Your task to perform on an android device: choose inbox layout in the gmail app Image 0: 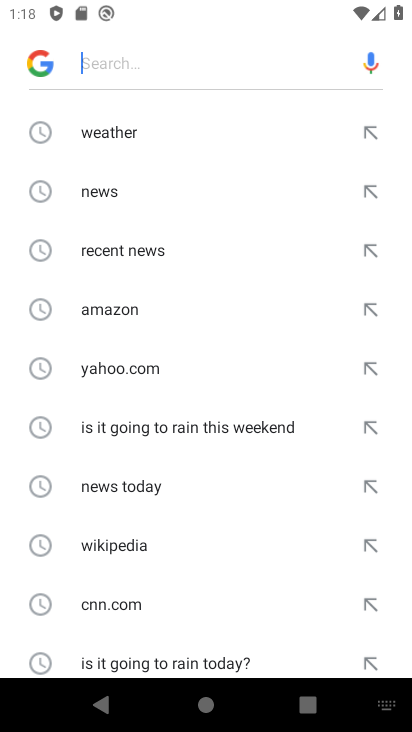
Step 0: press home button
Your task to perform on an android device: choose inbox layout in the gmail app Image 1: 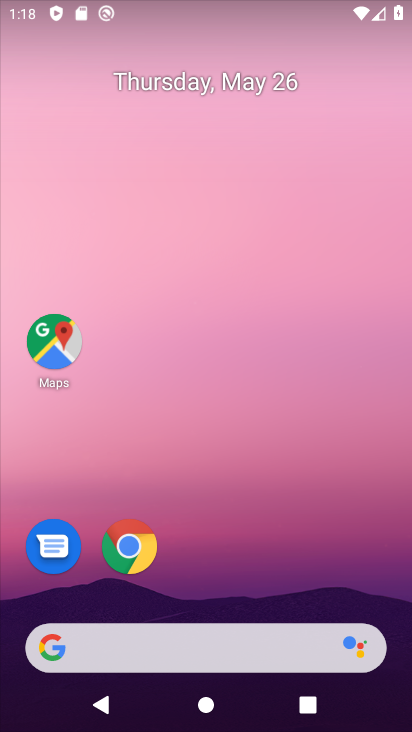
Step 1: drag from (225, 572) to (303, 139)
Your task to perform on an android device: choose inbox layout in the gmail app Image 2: 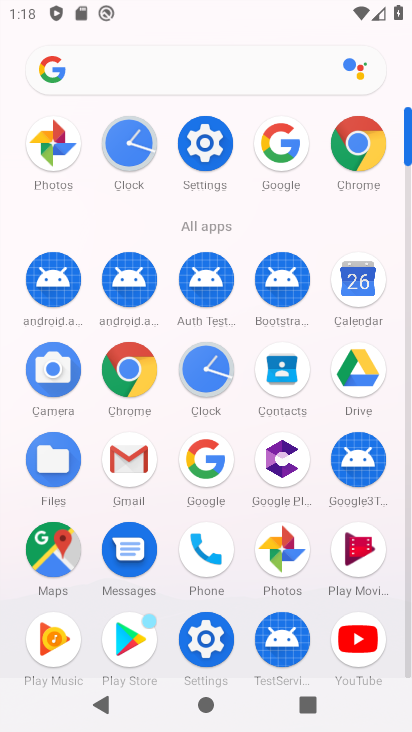
Step 2: click (130, 461)
Your task to perform on an android device: choose inbox layout in the gmail app Image 3: 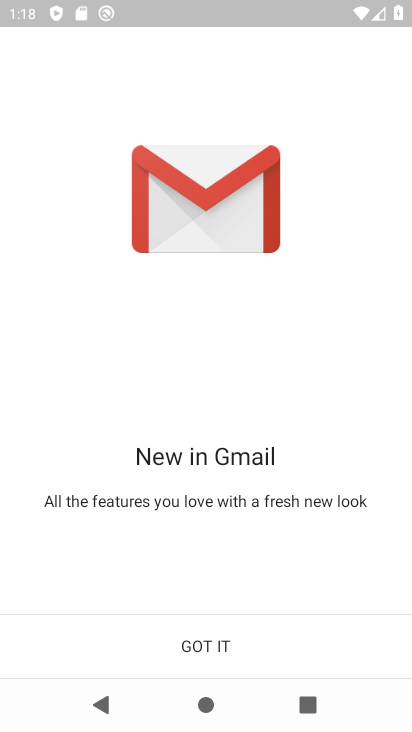
Step 3: click (210, 635)
Your task to perform on an android device: choose inbox layout in the gmail app Image 4: 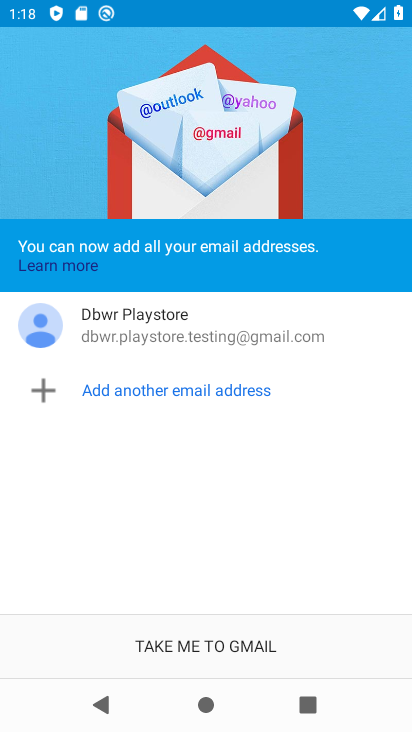
Step 4: click (197, 639)
Your task to perform on an android device: choose inbox layout in the gmail app Image 5: 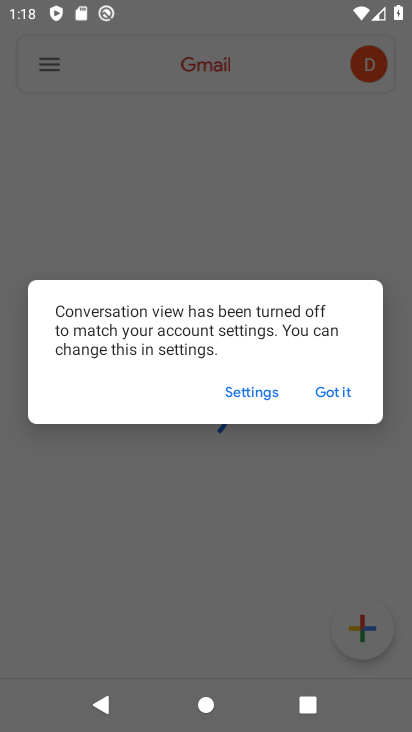
Step 5: click (320, 402)
Your task to perform on an android device: choose inbox layout in the gmail app Image 6: 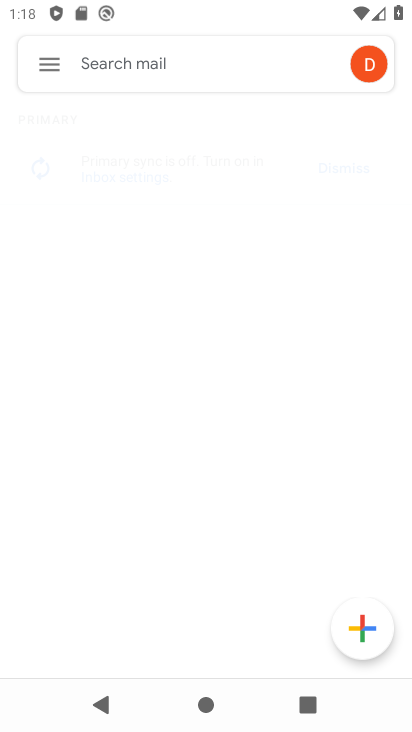
Step 6: click (45, 70)
Your task to perform on an android device: choose inbox layout in the gmail app Image 7: 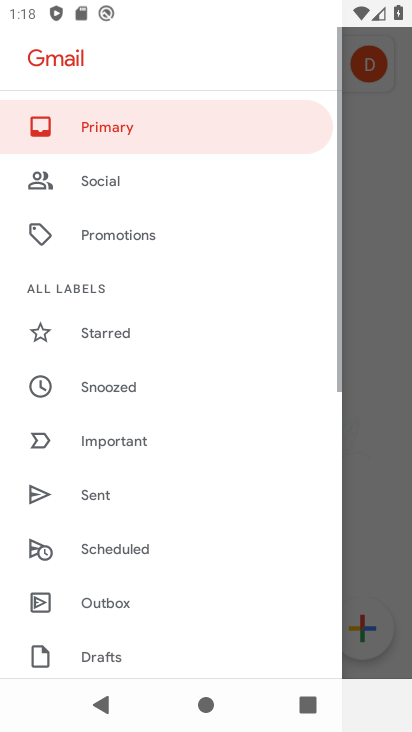
Step 7: drag from (155, 605) to (186, 134)
Your task to perform on an android device: choose inbox layout in the gmail app Image 8: 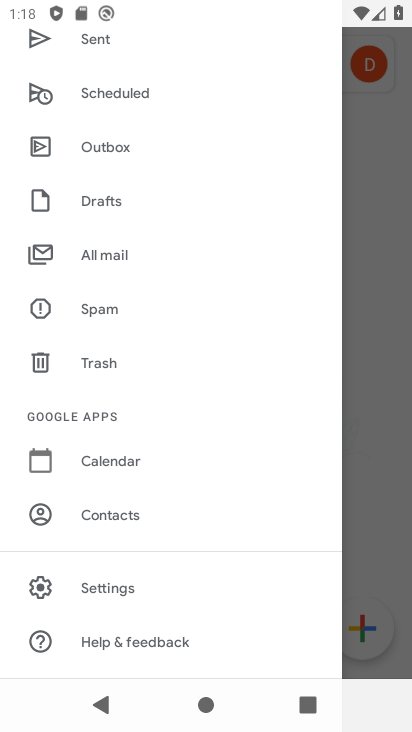
Step 8: click (111, 590)
Your task to perform on an android device: choose inbox layout in the gmail app Image 9: 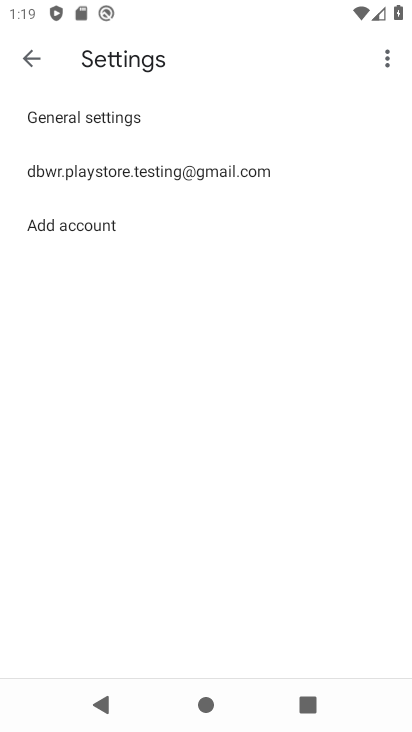
Step 9: click (120, 171)
Your task to perform on an android device: choose inbox layout in the gmail app Image 10: 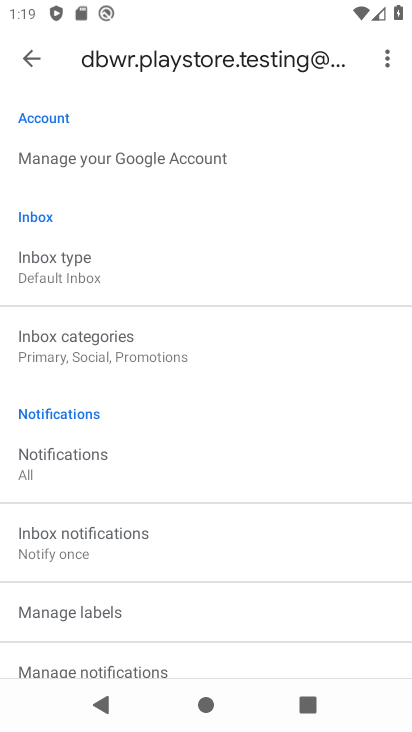
Step 10: click (77, 272)
Your task to perform on an android device: choose inbox layout in the gmail app Image 11: 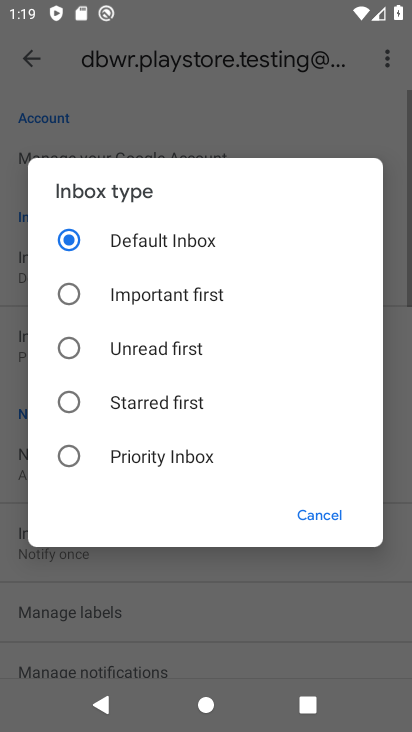
Step 11: click (73, 300)
Your task to perform on an android device: choose inbox layout in the gmail app Image 12: 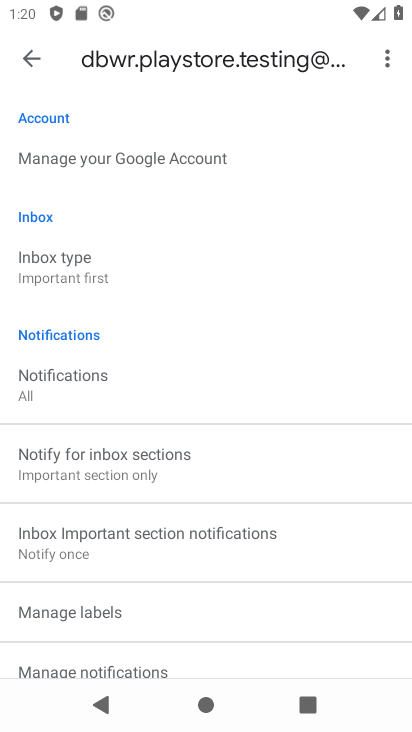
Step 12: task complete